Your task to perform on an android device: set the timer Image 0: 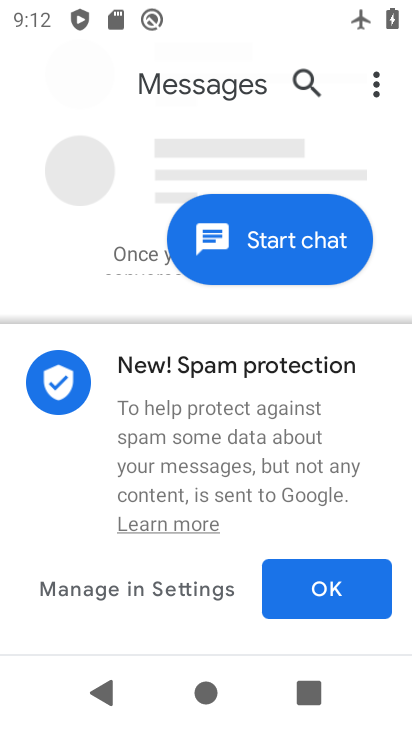
Step 0: drag from (215, 544) to (201, 123)
Your task to perform on an android device: set the timer Image 1: 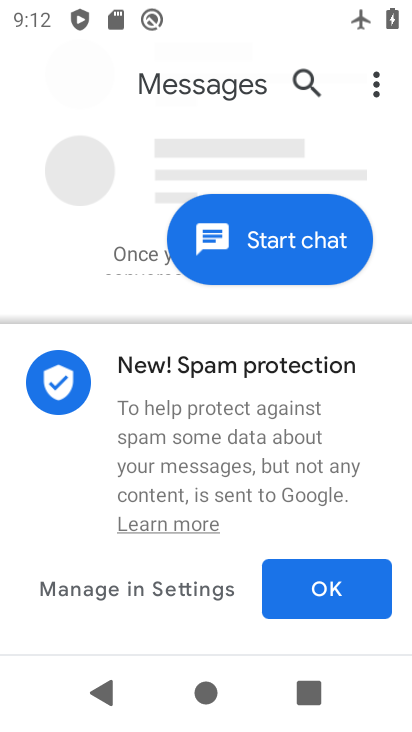
Step 1: press home button
Your task to perform on an android device: set the timer Image 2: 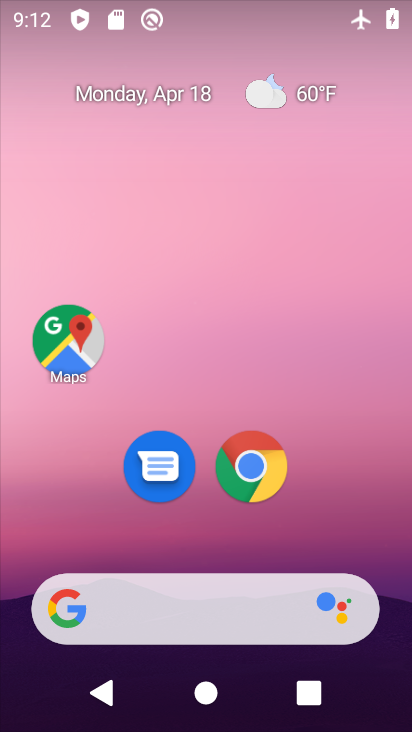
Step 2: drag from (331, 534) to (308, 16)
Your task to perform on an android device: set the timer Image 3: 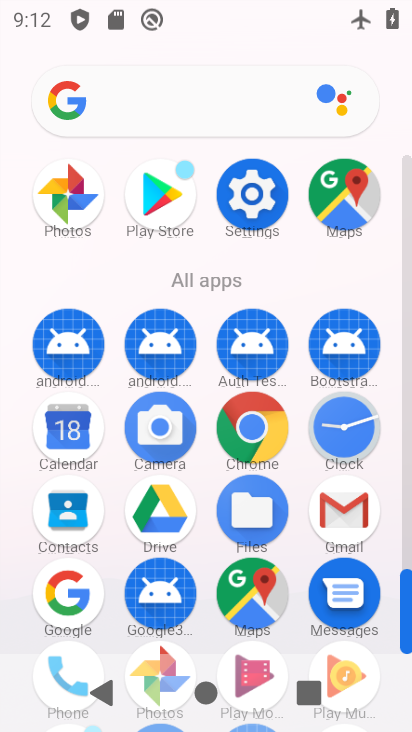
Step 3: click (359, 426)
Your task to perform on an android device: set the timer Image 4: 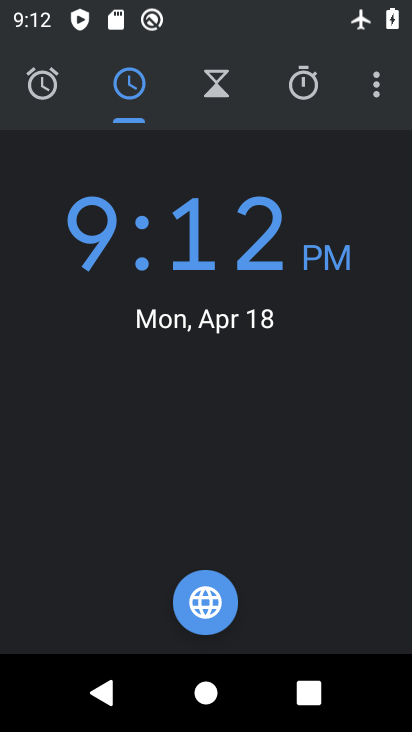
Step 4: click (211, 76)
Your task to perform on an android device: set the timer Image 5: 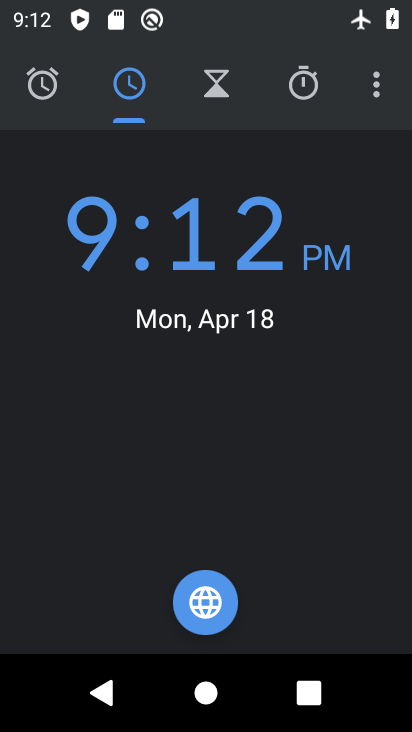
Step 5: click (218, 92)
Your task to perform on an android device: set the timer Image 6: 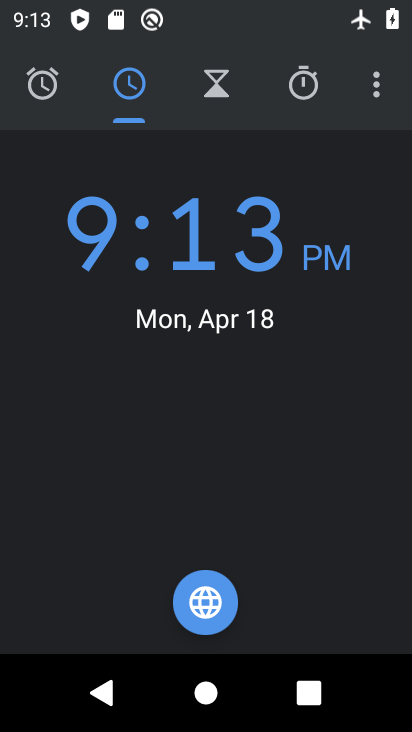
Step 6: click (217, 93)
Your task to perform on an android device: set the timer Image 7: 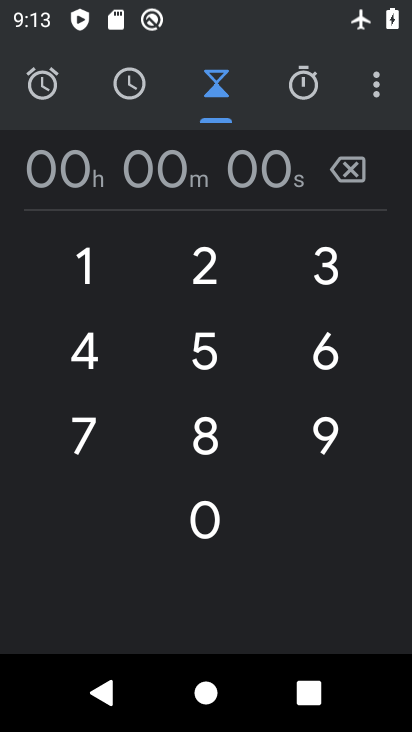
Step 7: click (89, 268)
Your task to perform on an android device: set the timer Image 8: 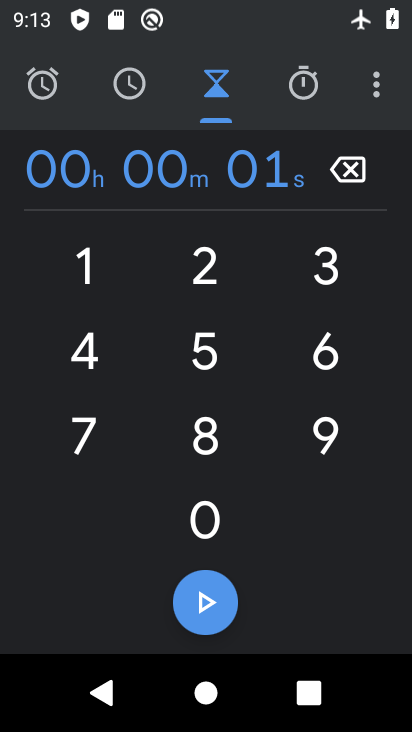
Step 8: click (89, 268)
Your task to perform on an android device: set the timer Image 9: 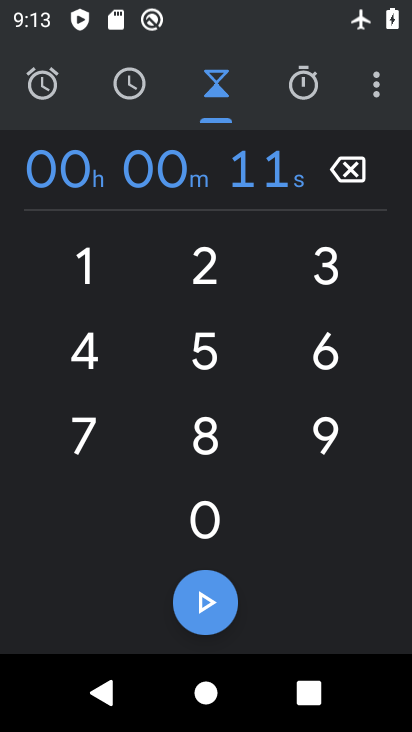
Step 9: click (89, 268)
Your task to perform on an android device: set the timer Image 10: 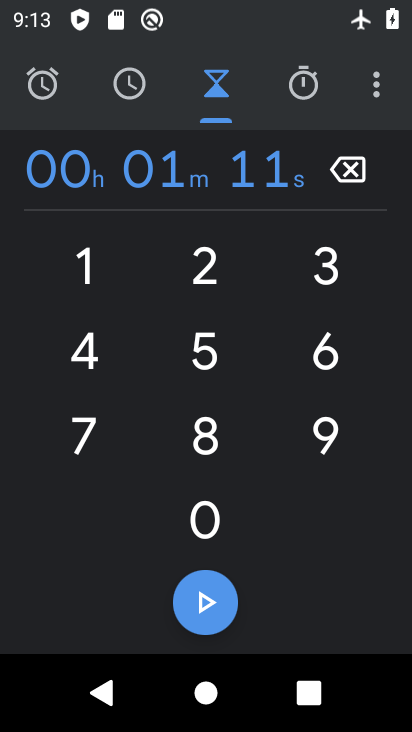
Step 10: click (89, 268)
Your task to perform on an android device: set the timer Image 11: 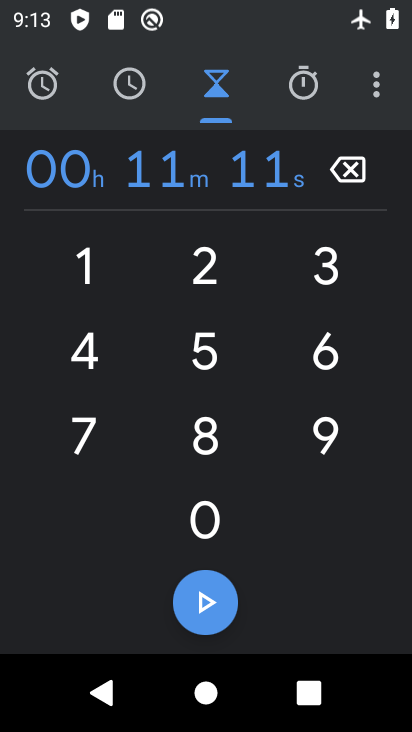
Step 11: click (89, 268)
Your task to perform on an android device: set the timer Image 12: 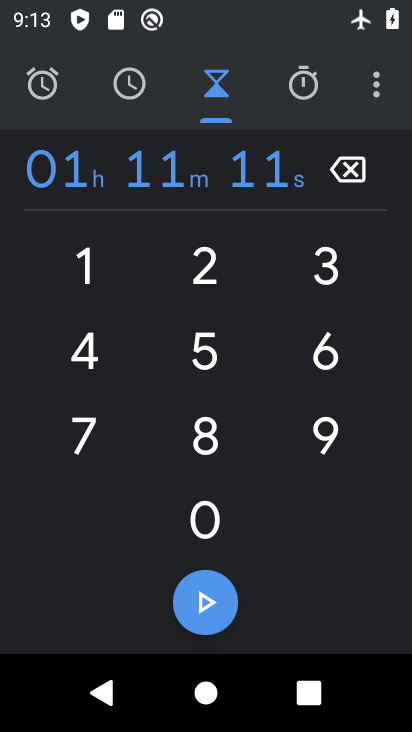
Step 12: click (89, 268)
Your task to perform on an android device: set the timer Image 13: 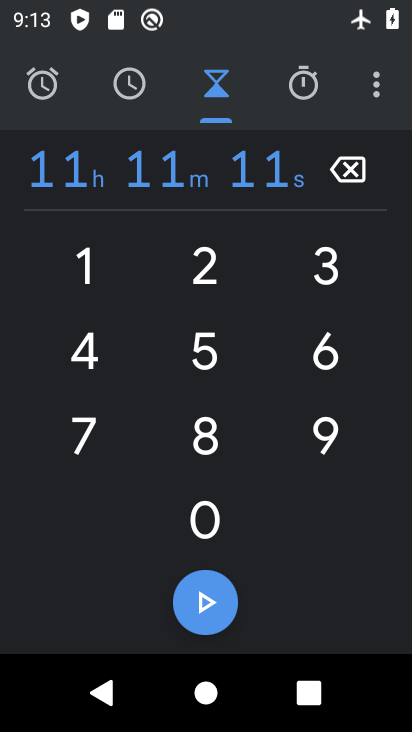
Step 13: task complete